Your task to perform on an android device: Check the weather Image 0: 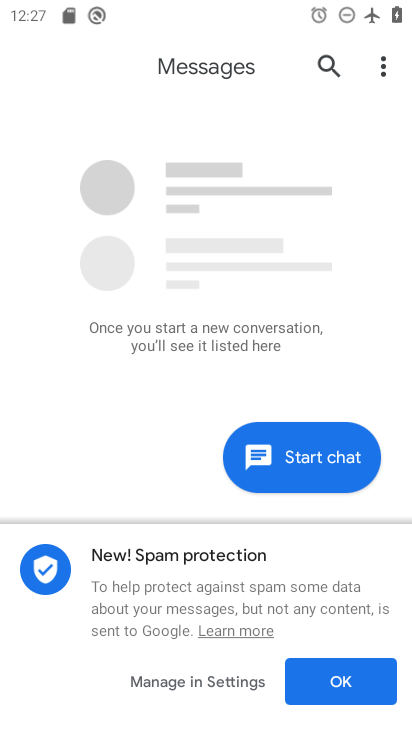
Step 0: press home button
Your task to perform on an android device: Check the weather Image 1: 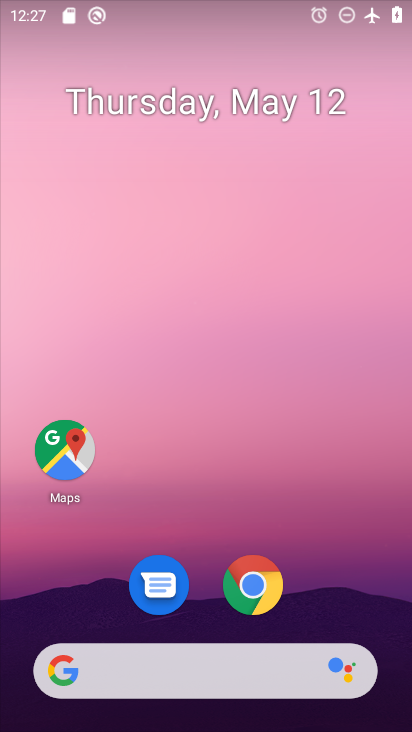
Step 1: click (193, 675)
Your task to perform on an android device: Check the weather Image 2: 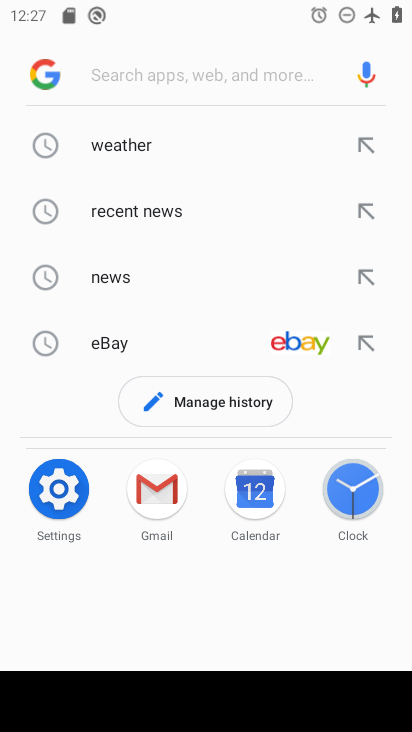
Step 2: click (105, 140)
Your task to perform on an android device: Check the weather Image 3: 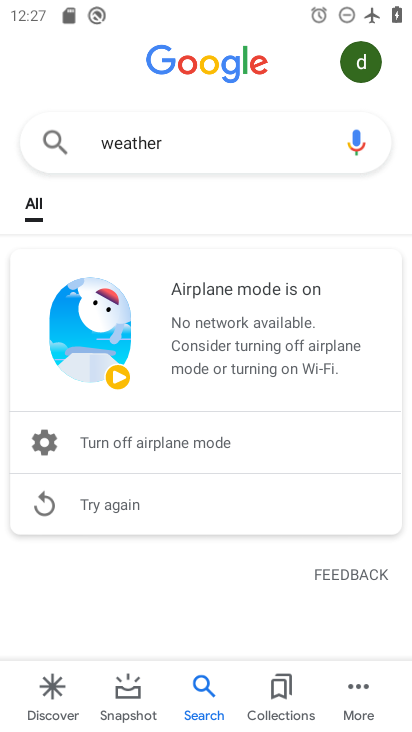
Step 3: task complete